Your task to perform on an android device: Show me the alarms in the clock app Image 0: 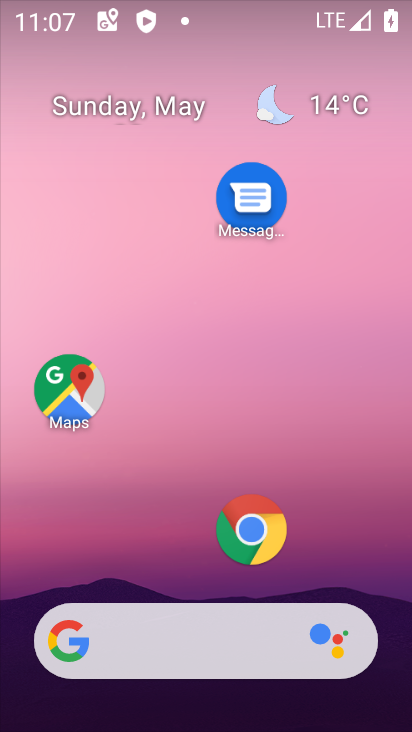
Step 0: click (388, 171)
Your task to perform on an android device: Show me the alarms in the clock app Image 1: 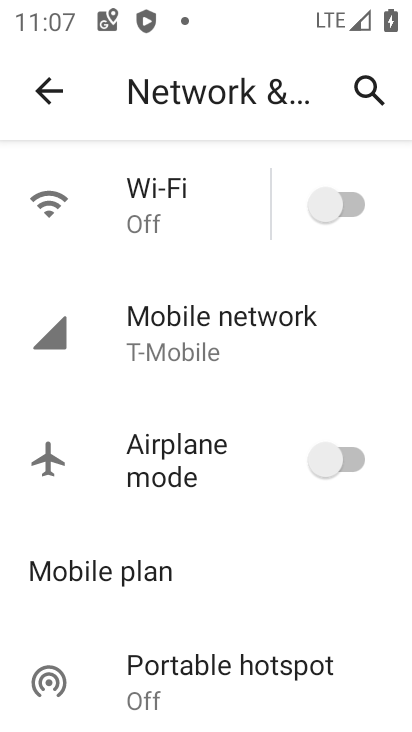
Step 1: press home button
Your task to perform on an android device: Show me the alarms in the clock app Image 2: 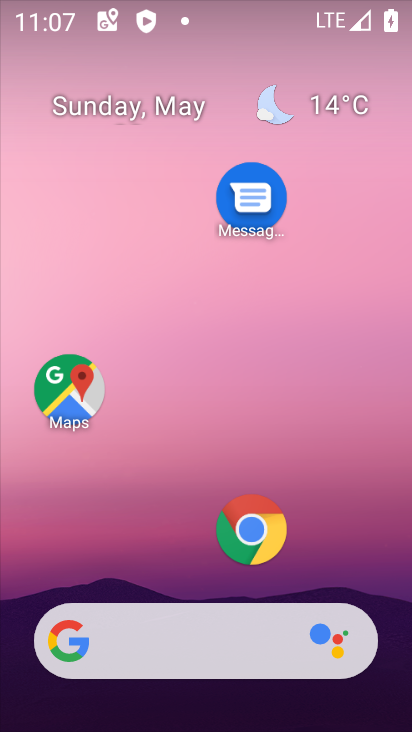
Step 2: drag from (198, 562) to (111, 108)
Your task to perform on an android device: Show me the alarms in the clock app Image 3: 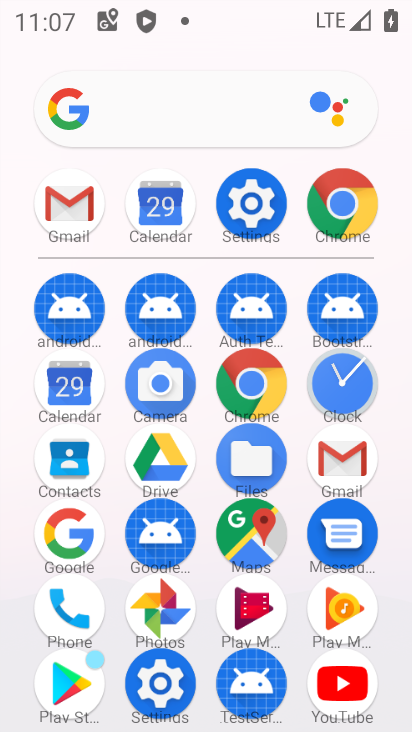
Step 3: click (356, 389)
Your task to perform on an android device: Show me the alarms in the clock app Image 4: 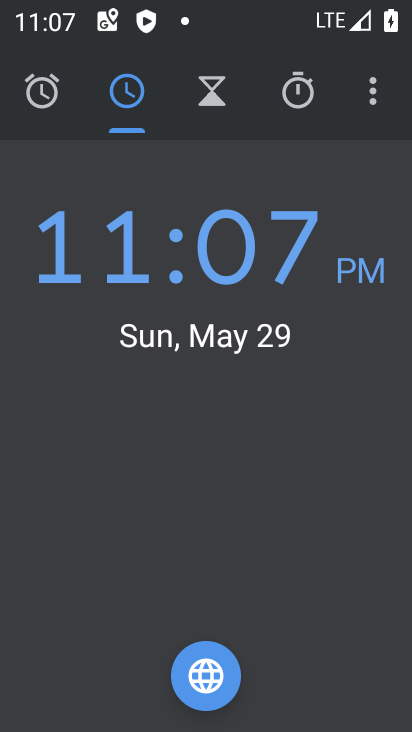
Step 4: click (365, 114)
Your task to perform on an android device: Show me the alarms in the clock app Image 5: 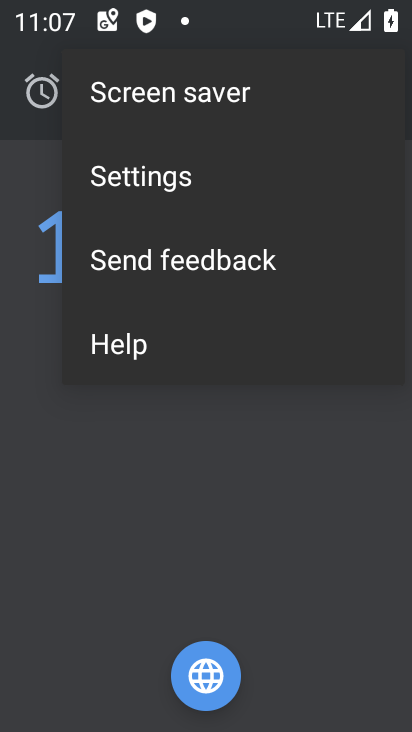
Step 5: click (157, 183)
Your task to perform on an android device: Show me the alarms in the clock app Image 6: 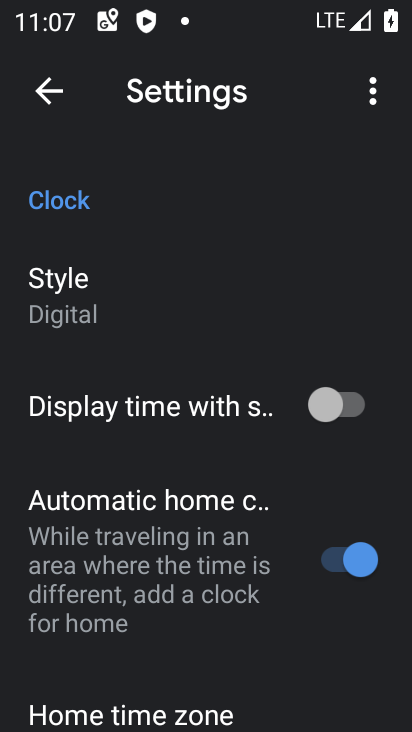
Step 6: click (67, 102)
Your task to perform on an android device: Show me the alarms in the clock app Image 7: 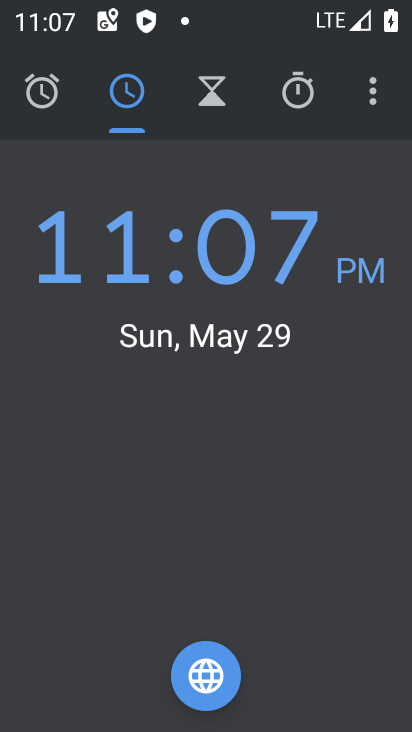
Step 7: click (67, 102)
Your task to perform on an android device: Show me the alarms in the clock app Image 8: 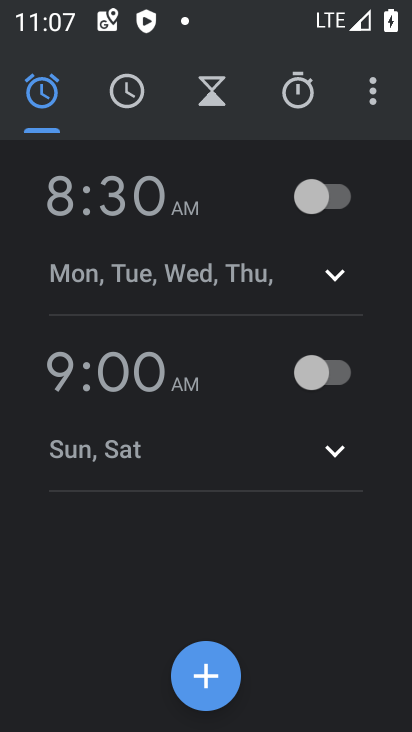
Step 8: task complete